Your task to perform on an android device: Search for Italian restaurants on Maps Image 0: 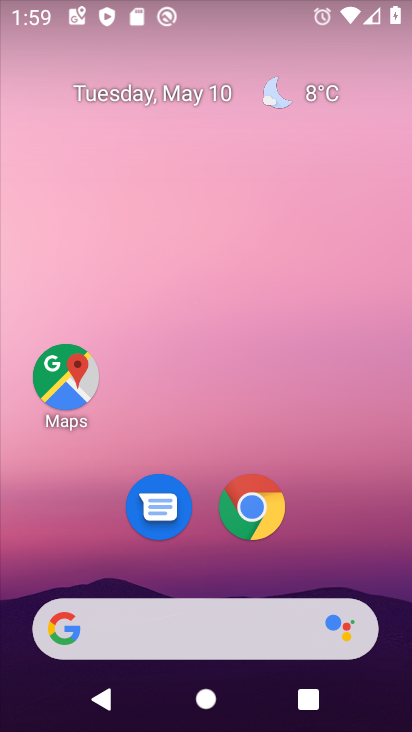
Step 0: drag from (233, 726) to (229, 141)
Your task to perform on an android device: Search for Italian restaurants on Maps Image 1: 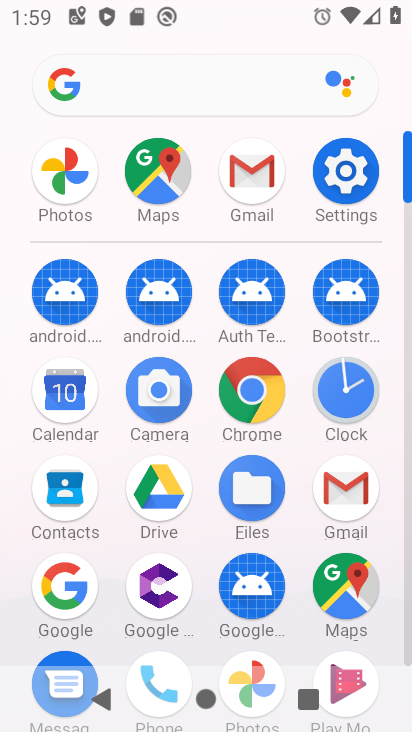
Step 1: click (336, 586)
Your task to perform on an android device: Search for Italian restaurants on Maps Image 2: 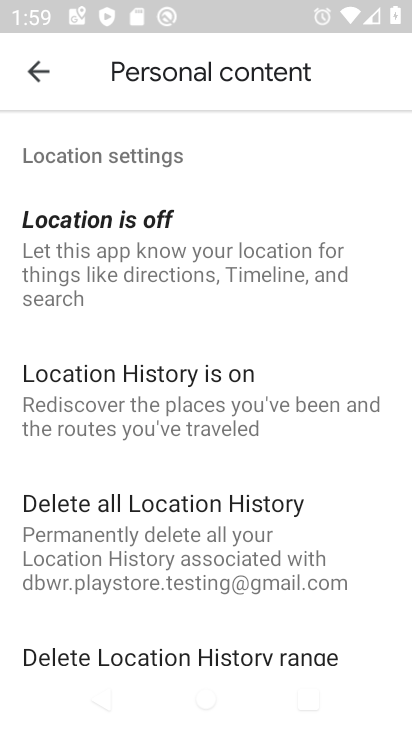
Step 2: click (42, 68)
Your task to perform on an android device: Search for Italian restaurants on Maps Image 3: 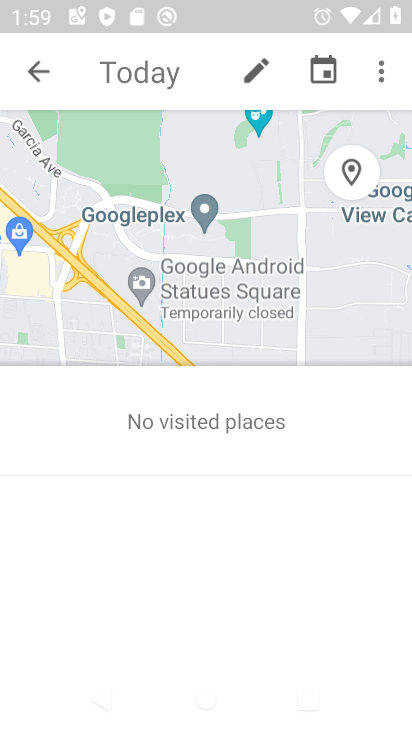
Step 3: click (35, 67)
Your task to perform on an android device: Search for Italian restaurants on Maps Image 4: 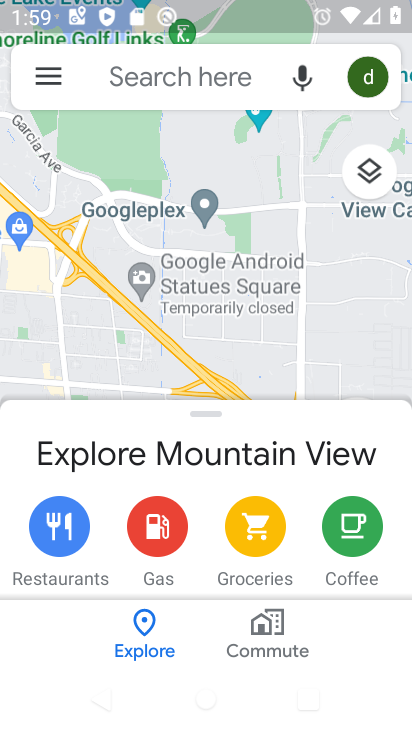
Step 4: click (204, 84)
Your task to perform on an android device: Search for Italian restaurants on Maps Image 5: 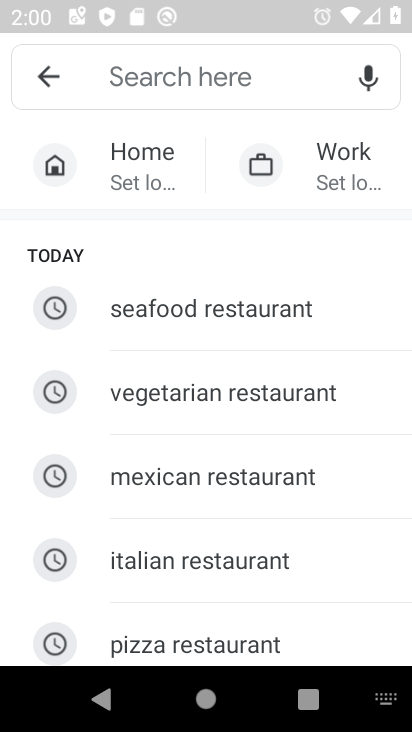
Step 5: type "Italian restaurants"
Your task to perform on an android device: Search for Italian restaurants on Maps Image 6: 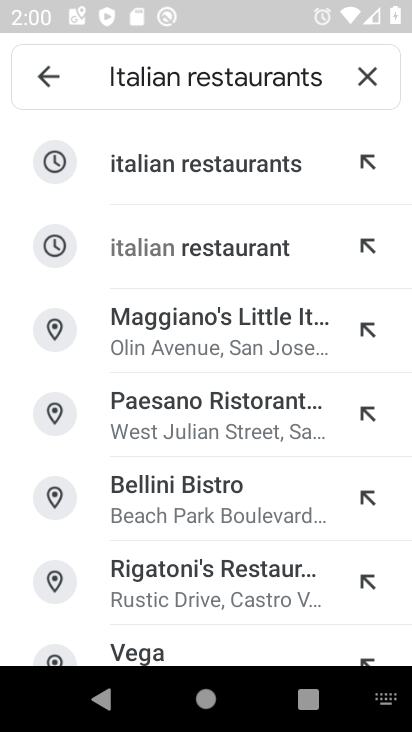
Step 6: click (256, 153)
Your task to perform on an android device: Search for Italian restaurants on Maps Image 7: 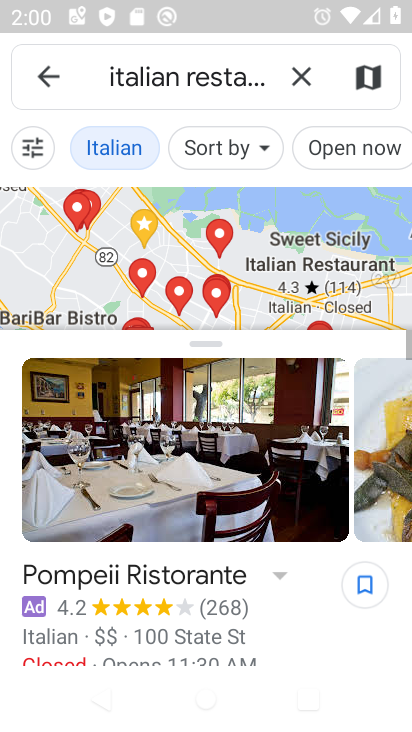
Step 7: task complete